Your task to perform on an android device: When is my next meeting? Image 0: 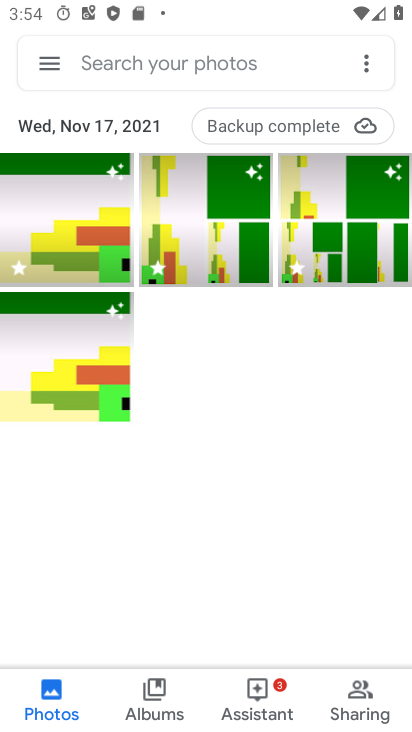
Step 0: press home button
Your task to perform on an android device: When is my next meeting? Image 1: 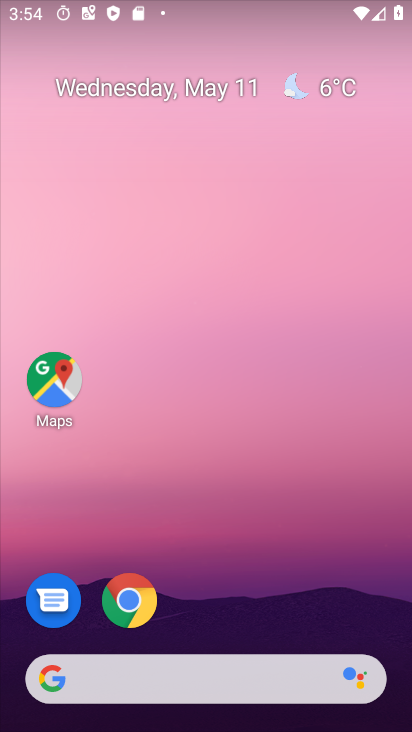
Step 1: drag from (336, 666) to (181, 10)
Your task to perform on an android device: When is my next meeting? Image 2: 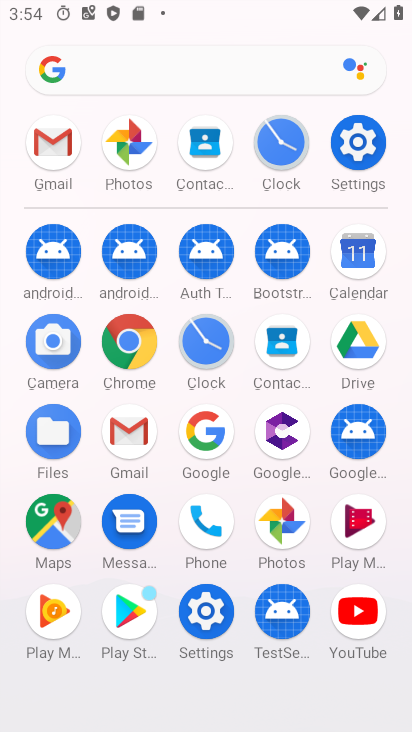
Step 2: click (356, 256)
Your task to perform on an android device: When is my next meeting? Image 3: 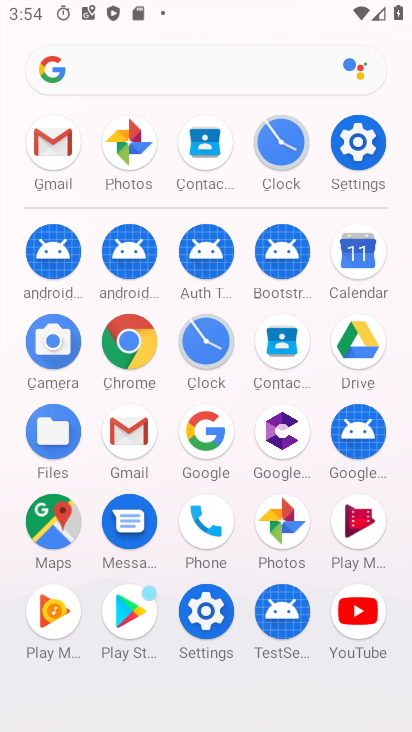
Step 3: click (356, 256)
Your task to perform on an android device: When is my next meeting? Image 4: 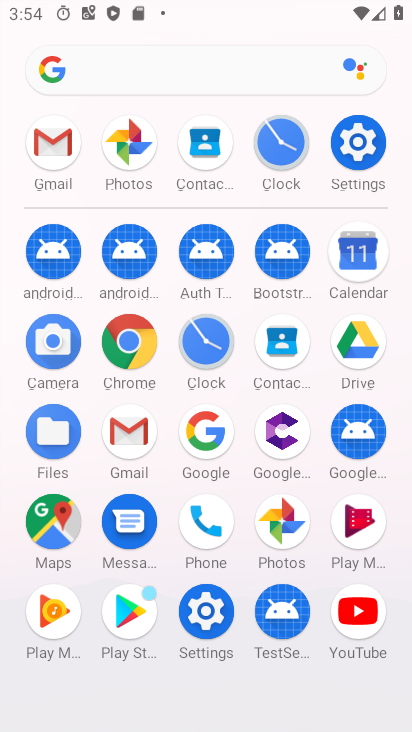
Step 4: click (356, 256)
Your task to perform on an android device: When is my next meeting? Image 5: 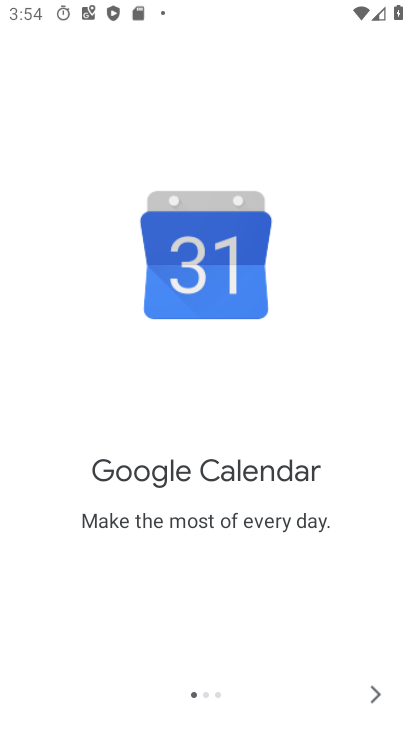
Step 5: click (372, 685)
Your task to perform on an android device: When is my next meeting? Image 6: 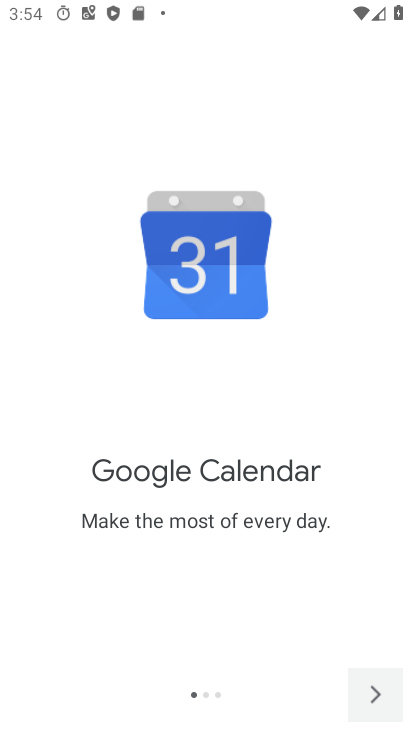
Step 6: click (374, 684)
Your task to perform on an android device: When is my next meeting? Image 7: 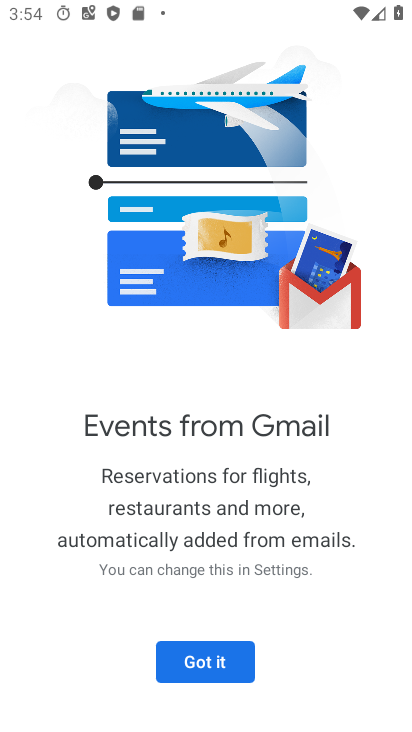
Step 7: click (202, 660)
Your task to perform on an android device: When is my next meeting? Image 8: 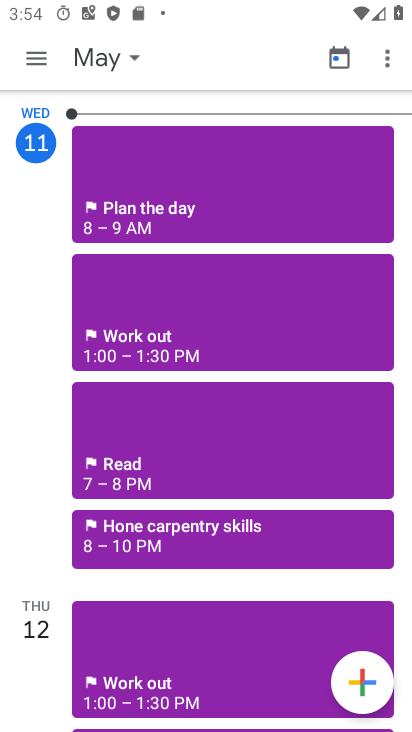
Step 8: drag from (170, 543) to (147, 146)
Your task to perform on an android device: When is my next meeting? Image 9: 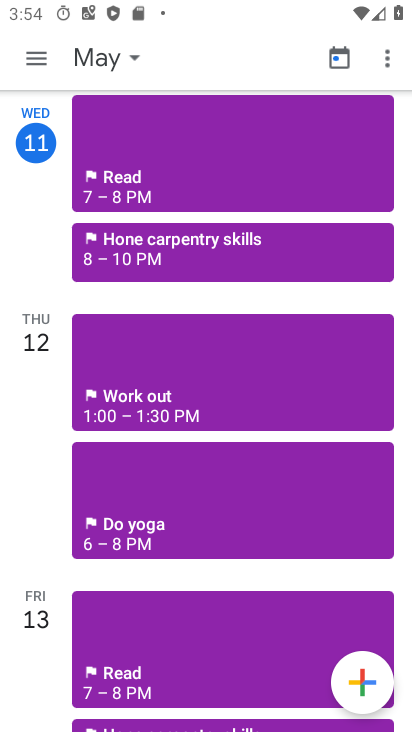
Step 9: drag from (159, 610) to (93, 73)
Your task to perform on an android device: When is my next meeting? Image 10: 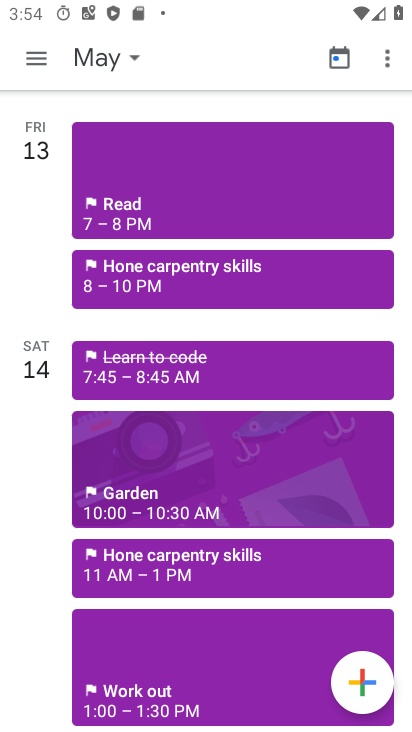
Step 10: drag from (177, 428) to (159, 30)
Your task to perform on an android device: When is my next meeting? Image 11: 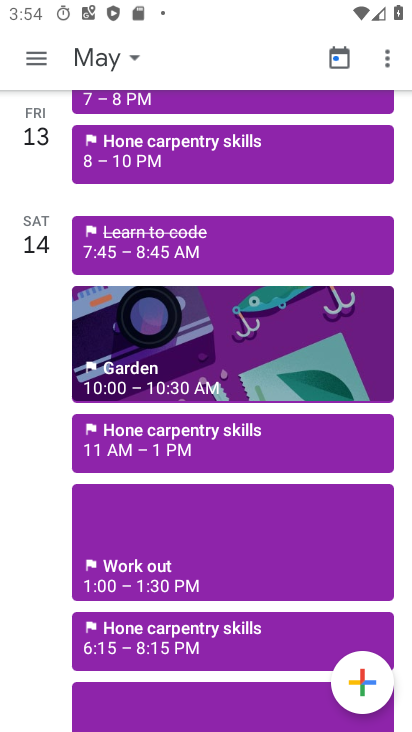
Step 11: click (161, 463)
Your task to perform on an android device: When is my next meeting? Image 12: 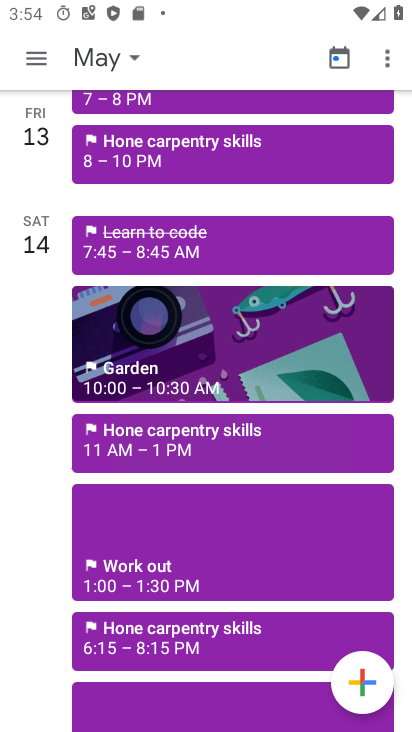
Step 12: click (161, 466)
Your task to perform on an android device: When is my next meeting? Image 13: 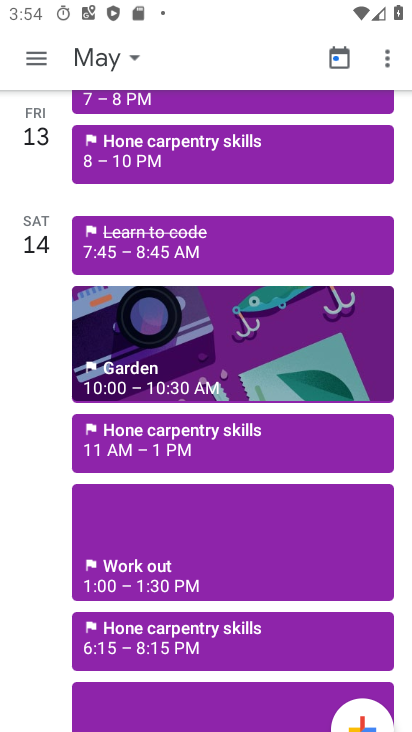
Step 13: click (157, 443)
Your task to perform on an android device: When is my next meeting? Image 14: 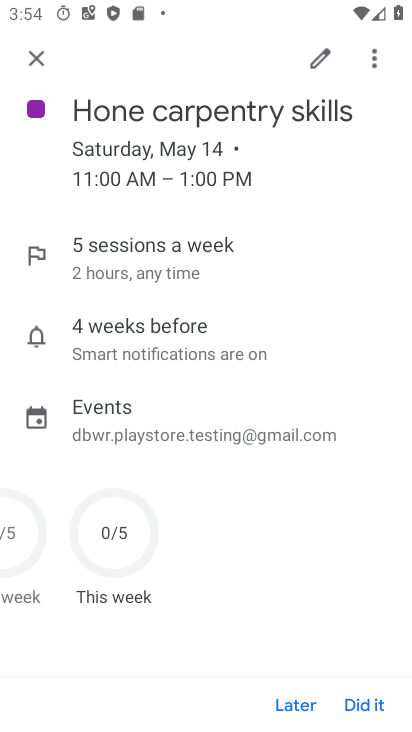
Step 14: click (131, 431)
Your task to perform on an android device: When is my next meeting? Image 15: 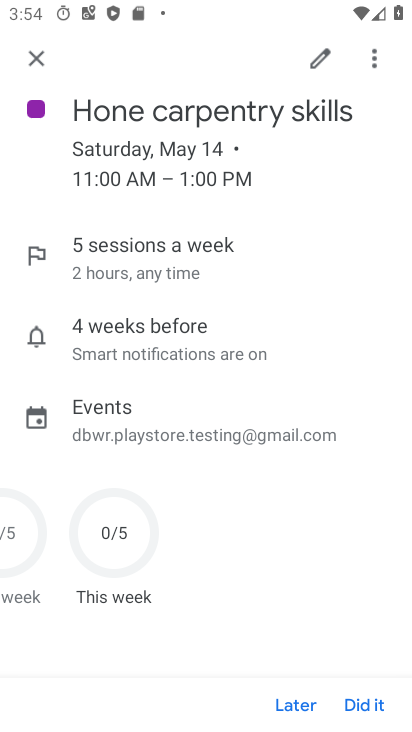
Step 15: click (36, 56)
Your task to perform on an android device: When is my next meeting? Image 16: 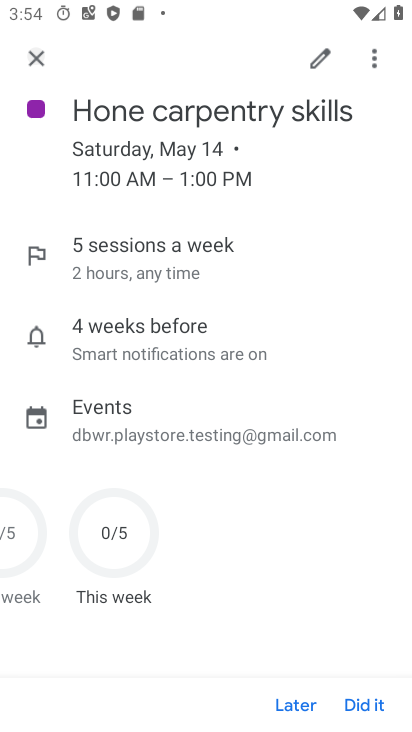
Step 16: click (36, 47)
Your task to perform on an android device: When is my next meeting? Image 17: 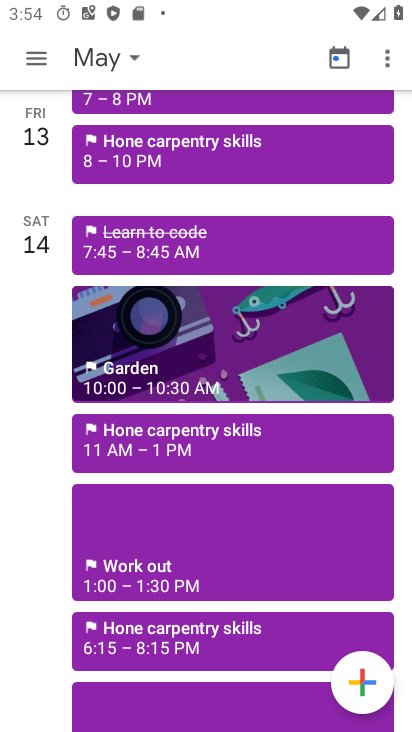
Step 17: task complete